Your task to perform on an android device: turn on location history Image 0: 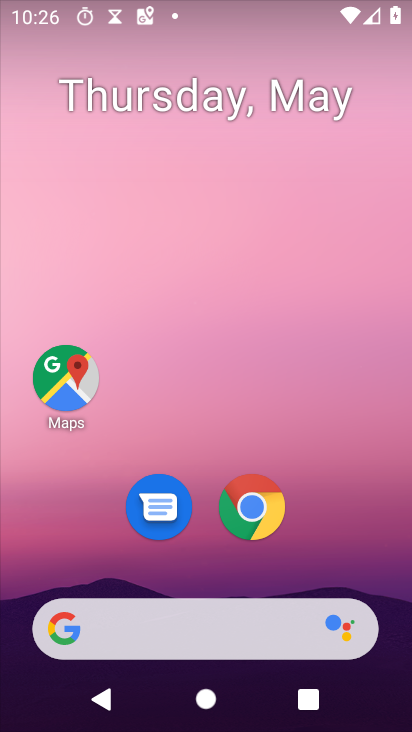
Step 0: drag from (156, 720) to (253, 51)
Your task to perform on an android device: turn on location history Image 1: 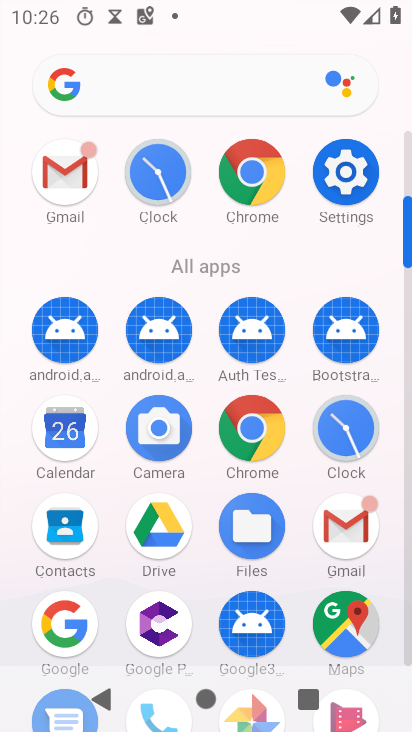
Step 1: click (335, 183)
Your task to perform on an android device: turn on location history Image 2: 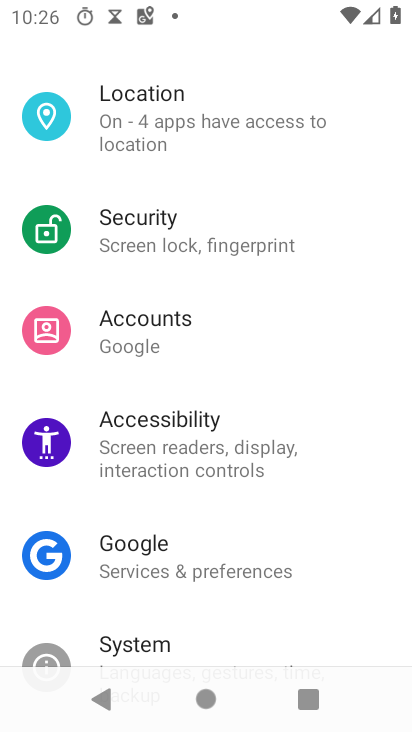
Step 2: click (128, 110)
Your task to perform on an android device: turn on location history Image 3: 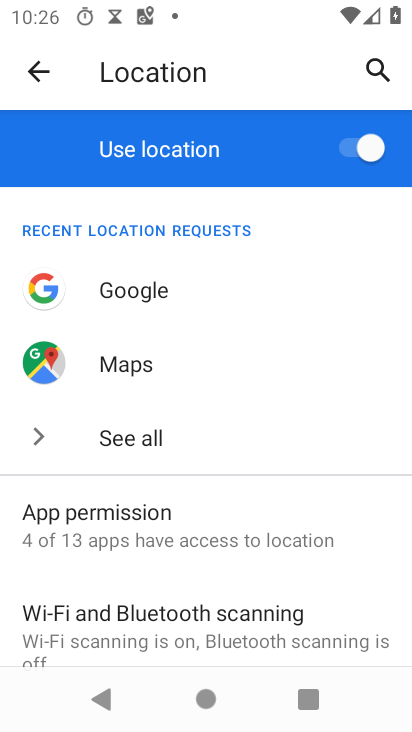
Step 3: drag from (257, 563) to (289, 159)
Your task to perform on an android device: turn on location history Image 4: 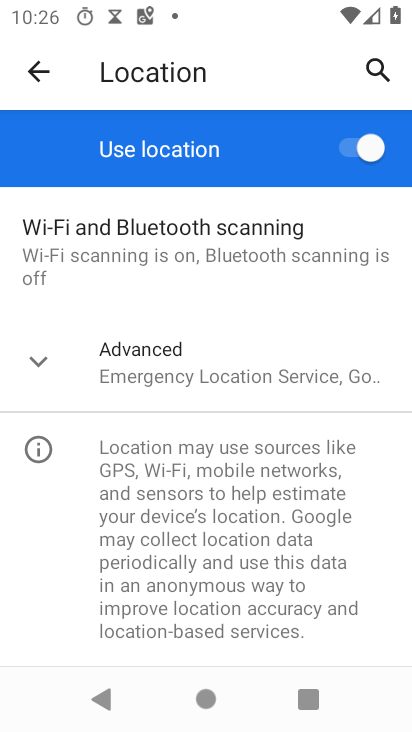
Step 4: click (194, 391)
Your task to perform on an android device: turn on location history Image 5: 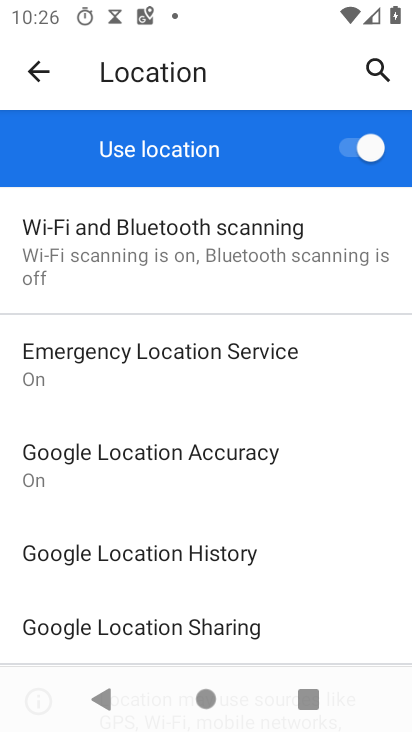
Step 5: click (183, 560)
Your task to perform on an android device: turn on location history Image 6: 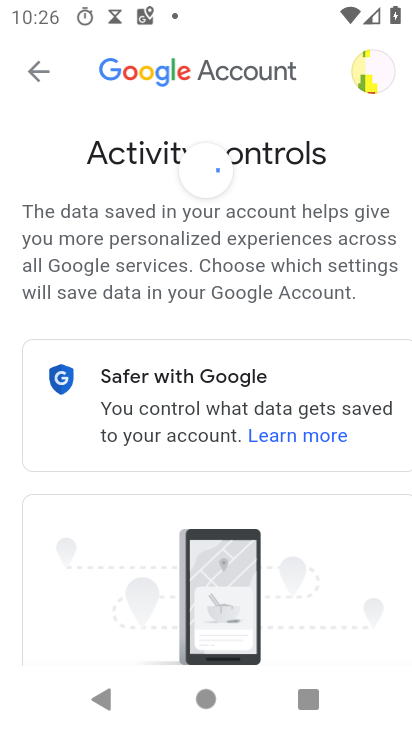
Step 6: drag from (316, 584) to (369, 137)
Your task to perform on an android device: turn on location history Image 7: 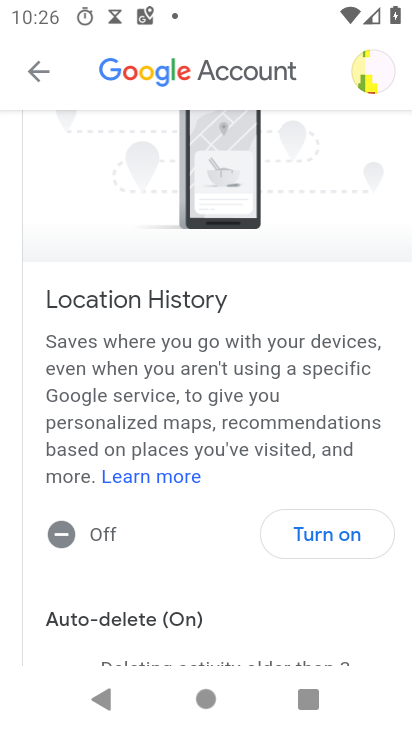
Step 7: click (355, 537)
Your task to perform on an android device: turn on location history Image 8: 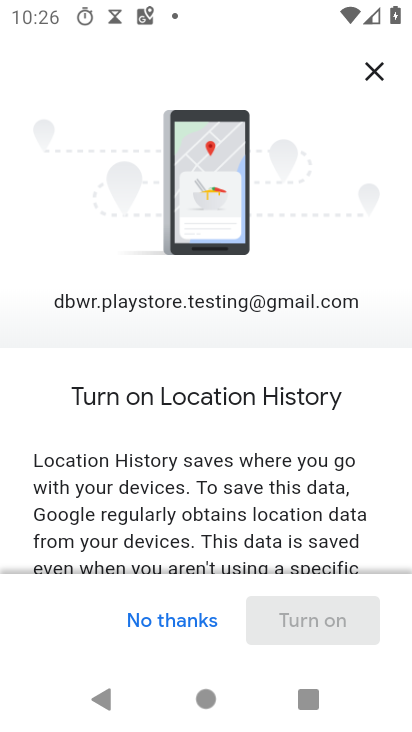
Step 8: click (183, 623)
Your task to perform on an android device: turn on location history Image 9: 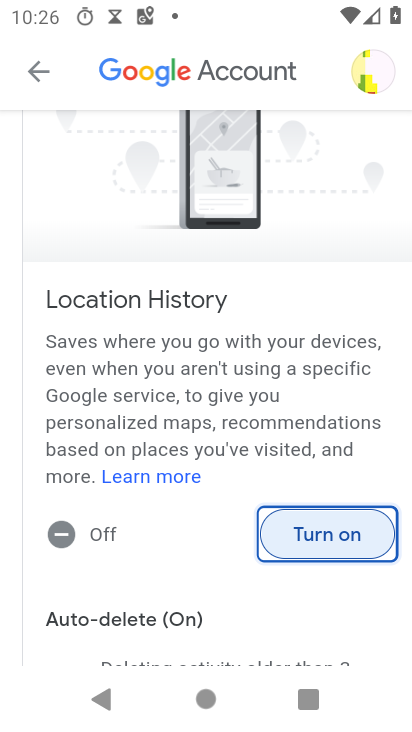
Step 9: click (298, 549)
Your task to perform on an android device: turn on location history Image 10: 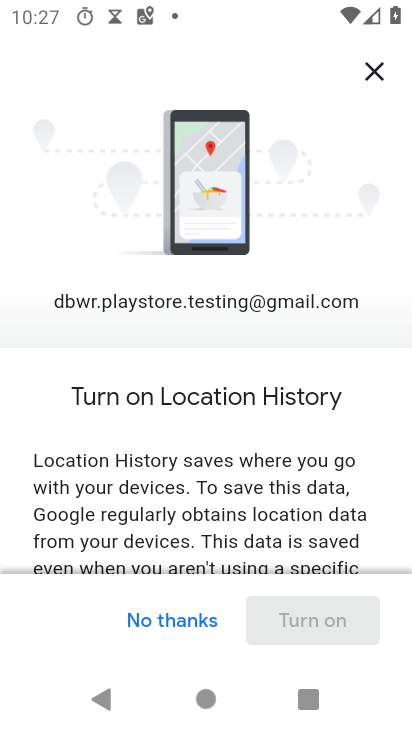
Step 10: drag from (306, 525) to (341, 111)
Your task to perform on an android device: turn on location history Image 11: 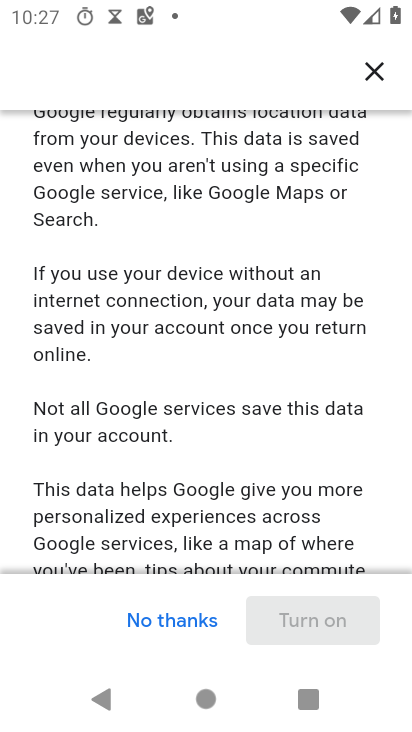
Step 11: drag from (291, 443) to (277, 148)
Your task to perform on an android device: turn on location history Image 12: 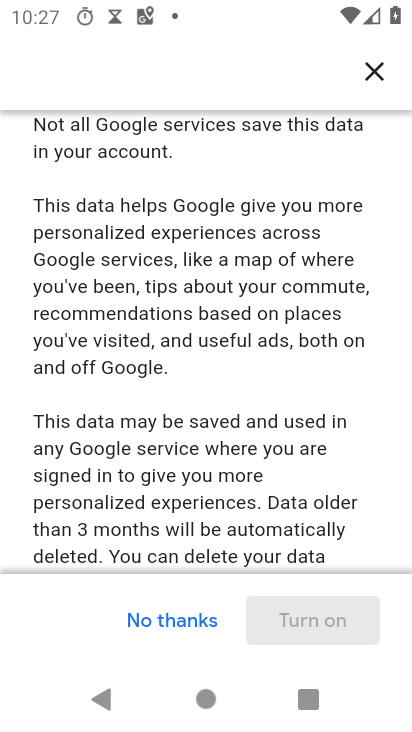
Step 12: drag from (311, 454) to (315, 133)
Your task to perform on an android device: turn on location history Image 13: 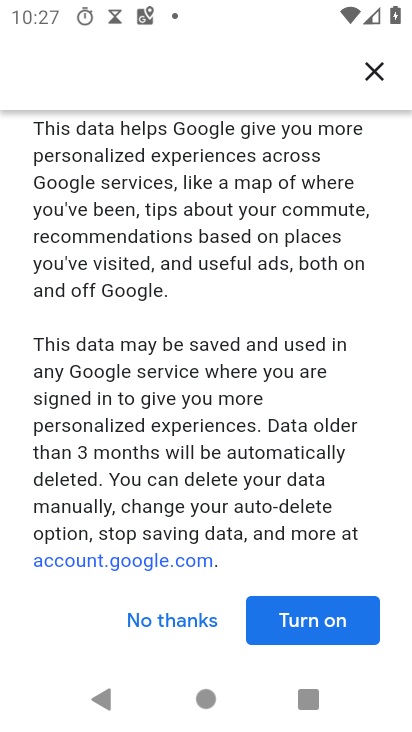
Step 13: click (304, 635)
Your task to perform on an android device: turn on location history Image 14: 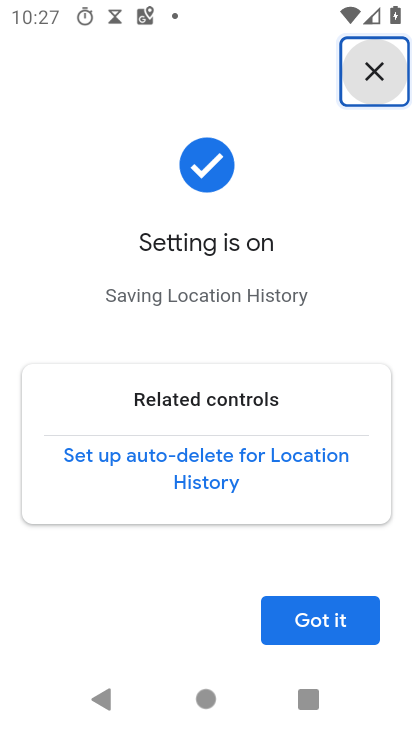
Step 14: click (352, 638)
Your task to perform on an android device: turn on location history Image 15: 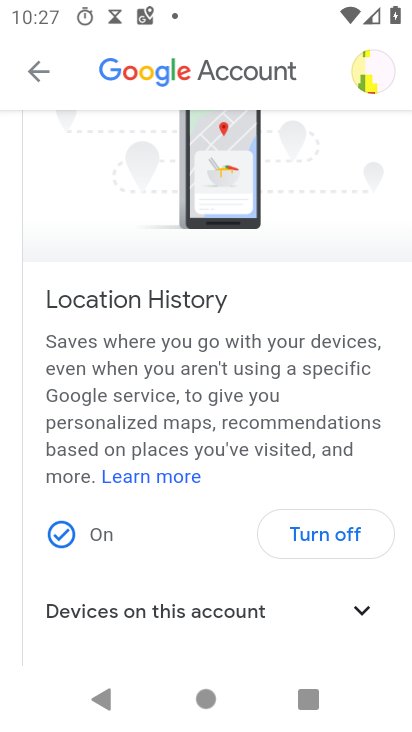
Step 15: task complete